Your task to perform on an android device: Open battery settings Image 0: 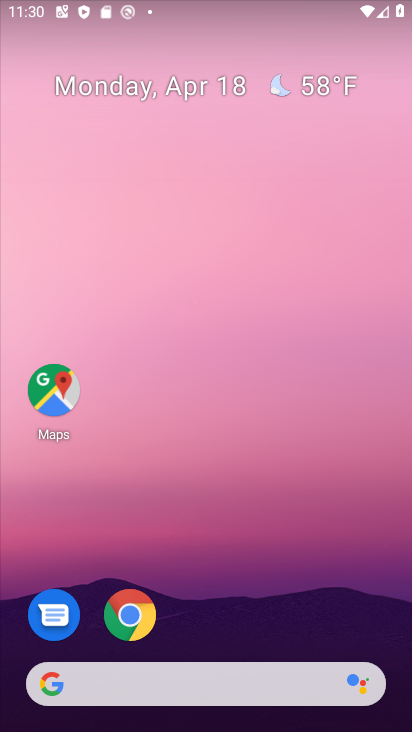
Step 0: drag from (280, 614) to (287, 105)
Your task to perform on an android device: Open battery settings Image 1: 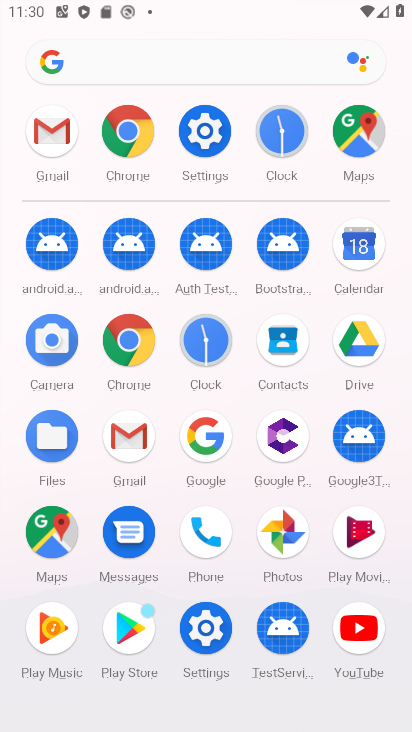
Step 1: click (202, 138)
Your task to perform on an android device: Open battery settings Image 2: 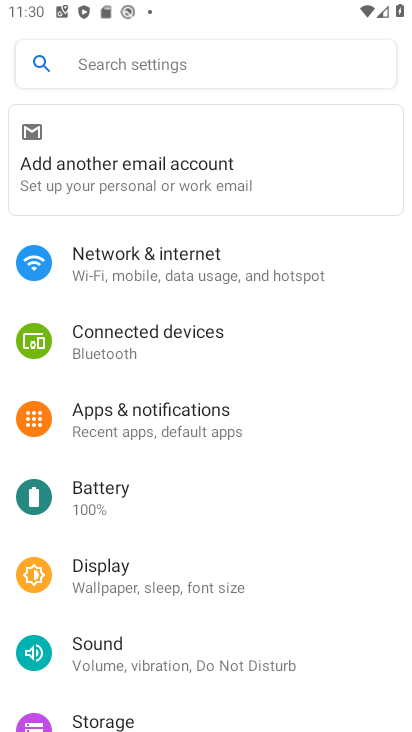
Step 2: click (138, 519)
Your task to perform on an android device: Open battery settings Image 3: 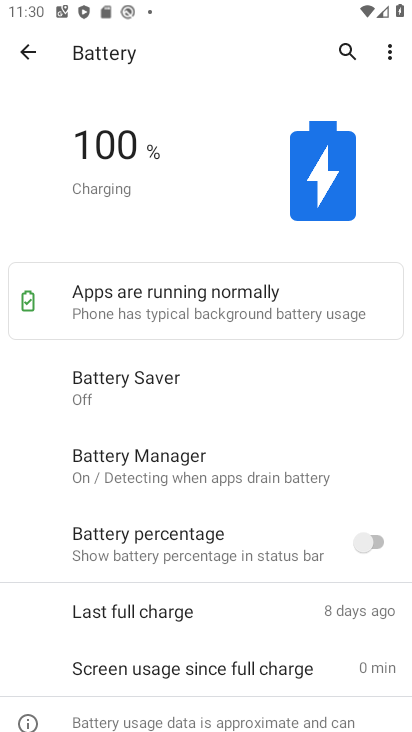
Step 3: task complete